Your task to perform on an android device: change notification settings in the gmail app Image 0: 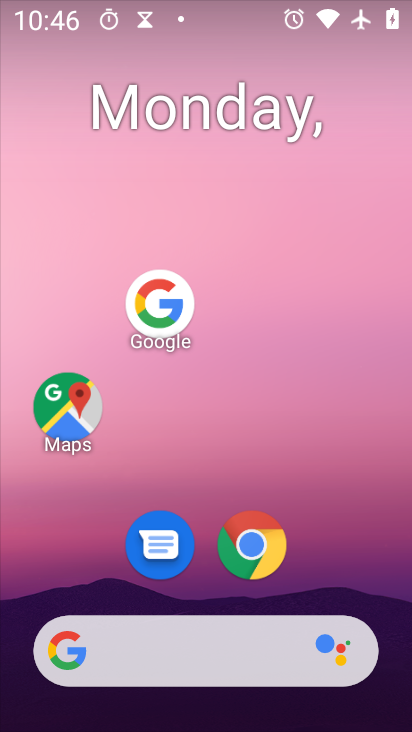
Step 0: press home button
Your task to perform on an android device: change notification settings in the gmail app Image 1: 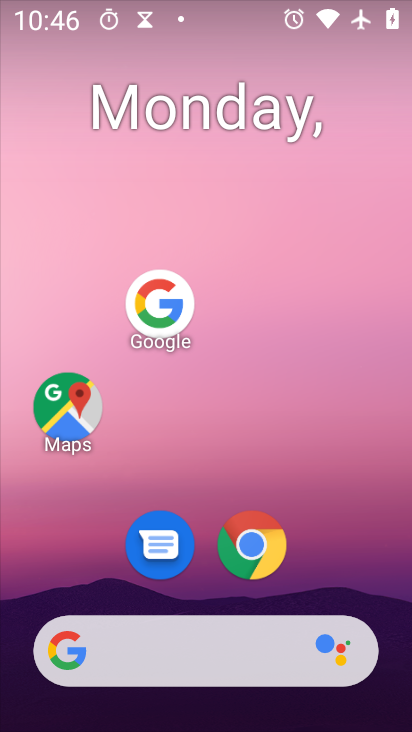
Step 1: drag from (219, 629) to (296, 55)
Your task to perform on an android device: change notification settings in the gmail app Image 2: 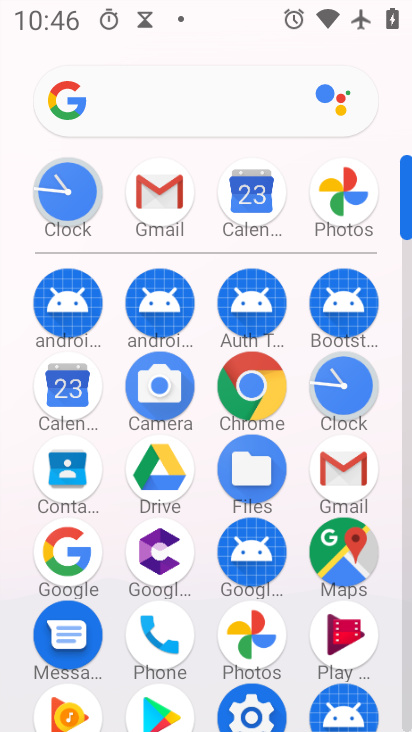
Step 2: click (166, 209)
Your task to perform on an android device: change notification settings in the gmail app Image 3: 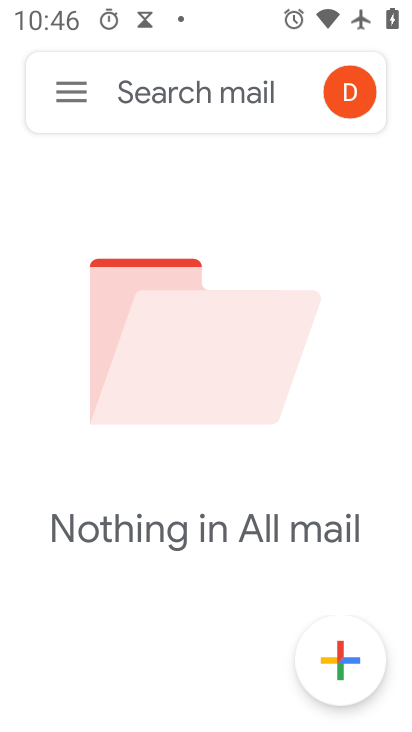
Step 3: click (73, 96)
Your task to perform on an android device: change notification settings in the gmail app Image 4: 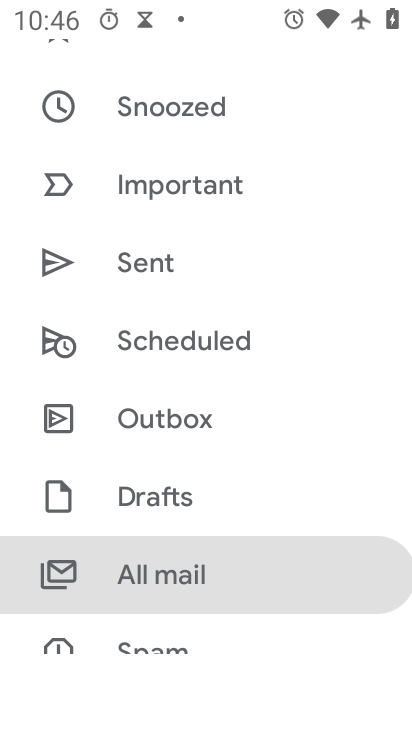
Step 4: drag from (210, 640) to (315, 137)
Your task to perform on an android device: change notification settings in the gmail app Image 5: 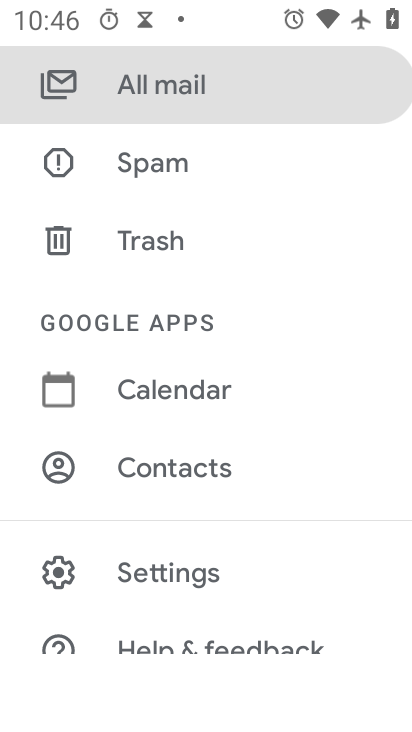
Step 5: click (212, 585)
Your task to perform on an android device: change notification settings in the gmail app Image 6: 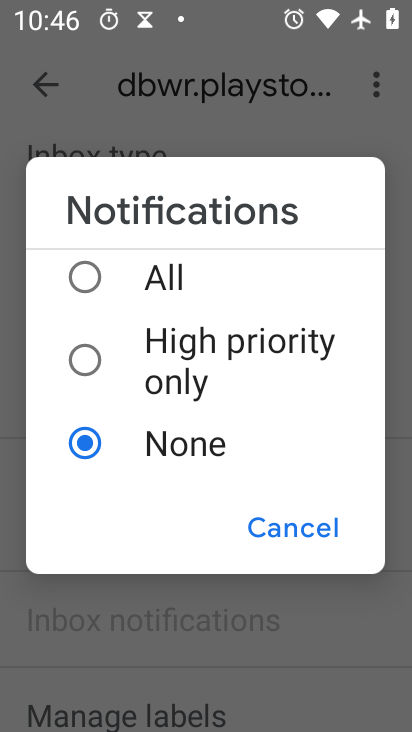
Step 6: click (83, 269)
Your task to perform on an android device: change notification settings in the gmail app Image 7: 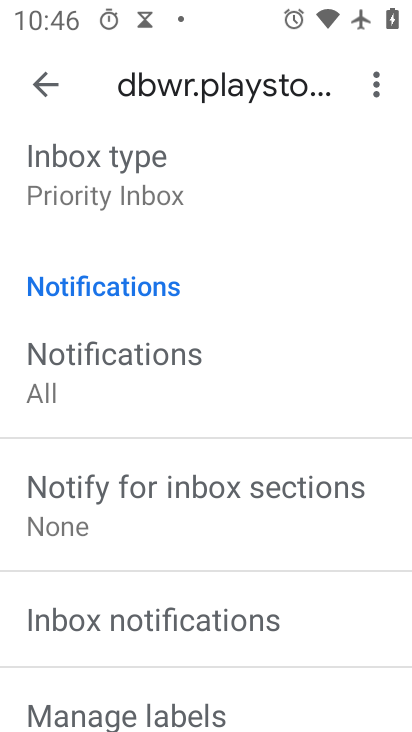
Step 7: task complete